Your task to perform on an android device: Search for Italian restaurants on Maps Image 0: 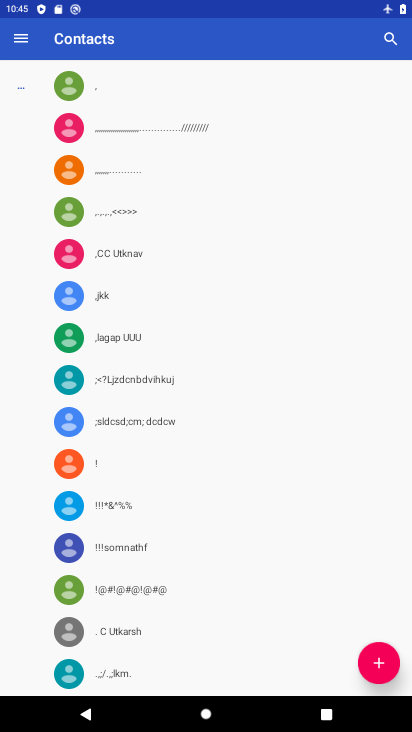
Step 0: press home button
Your task to perform on an android device: Search for Italian restaurants on Maps Image 1: 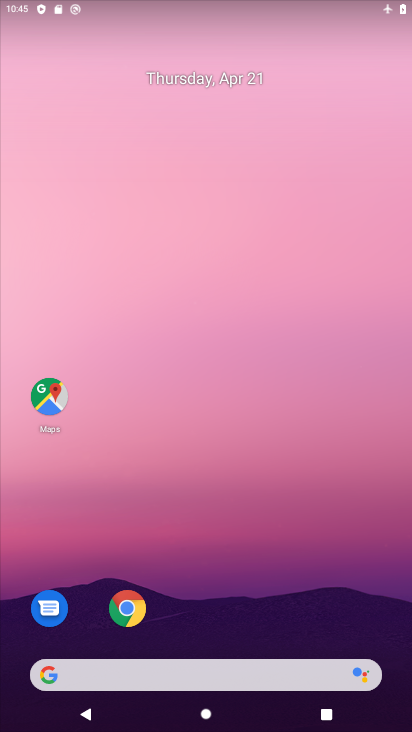
Step 1: drag from (170, 590) to (228, 143)
Your task to perform on an android device: Search for Italian restaurants on Maps Image 2: 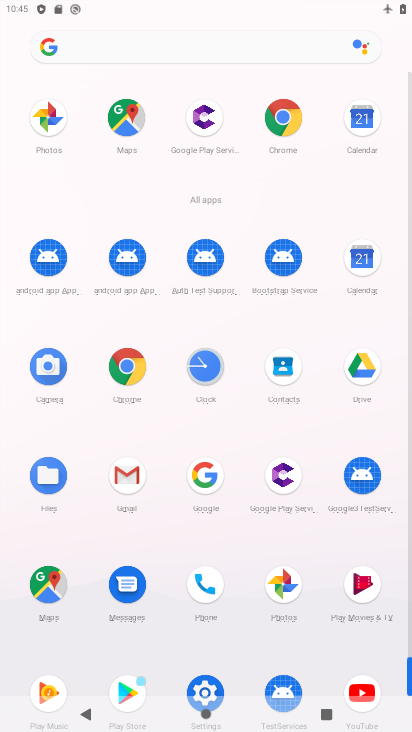
Step 2: click (123, 121)
Your task to perform on an android device: Search for Italian restaurants on Maps Image 3: 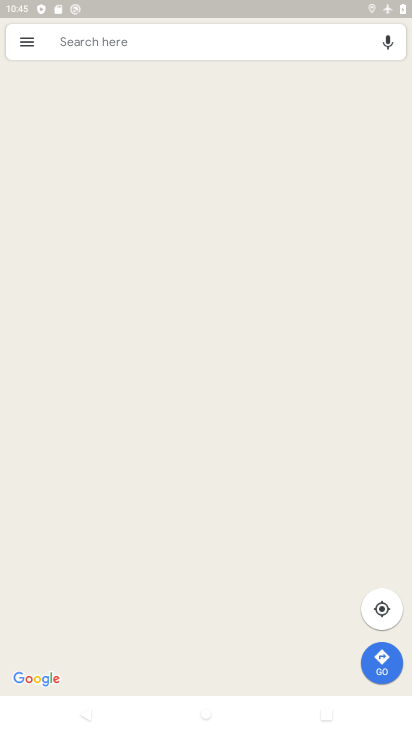
Step 3: click (114, 45)
Your task to perform on an android device: Search for Italian restaurants on Maps Image 4: 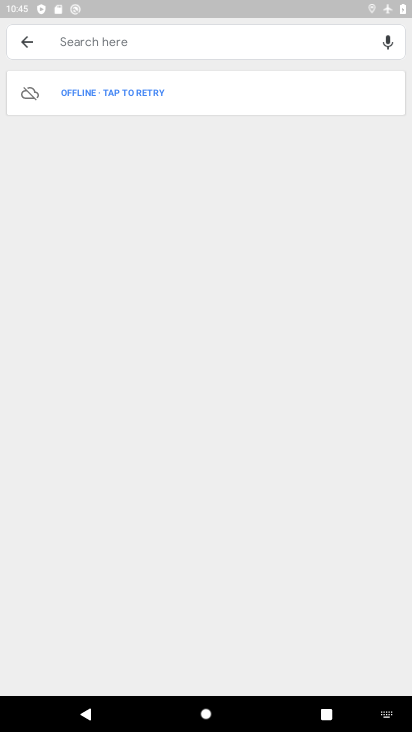
Step 4: task complete